Your task to perform on an android device: What is the news today? Image 0: 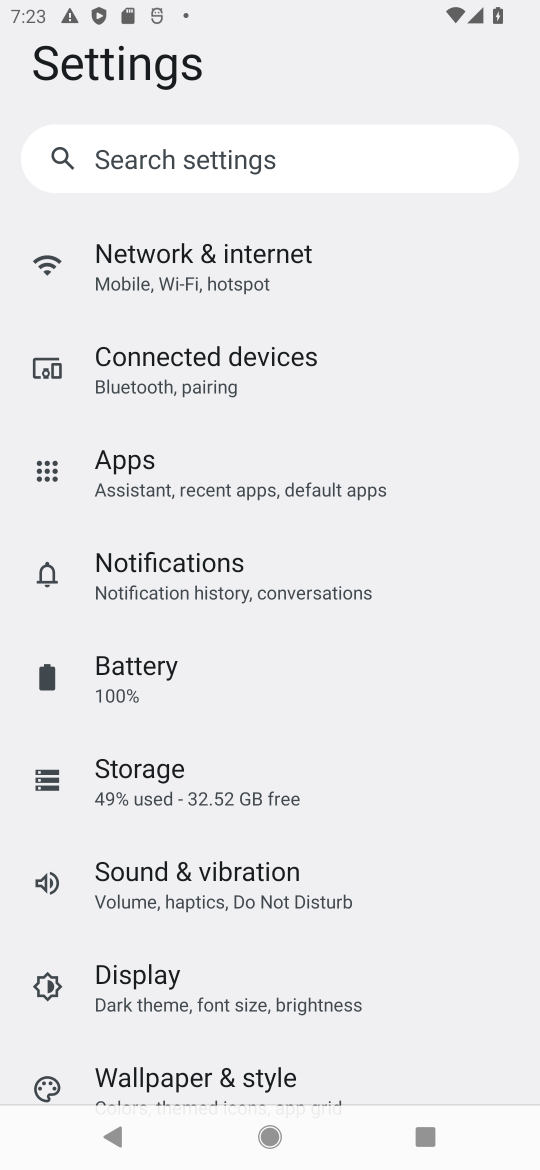
Step 0: press home button
Your task to perform on an android device: What is the news today? Image 1: 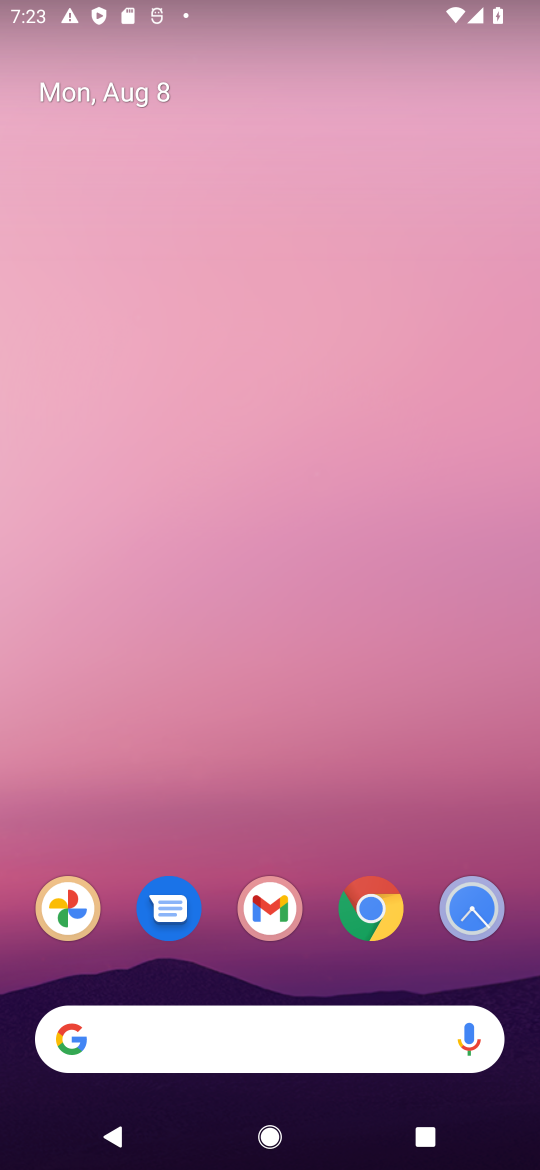
Step 1: click (258, 1036)
Your task to perform on an android device: What is the news today? Image 2: 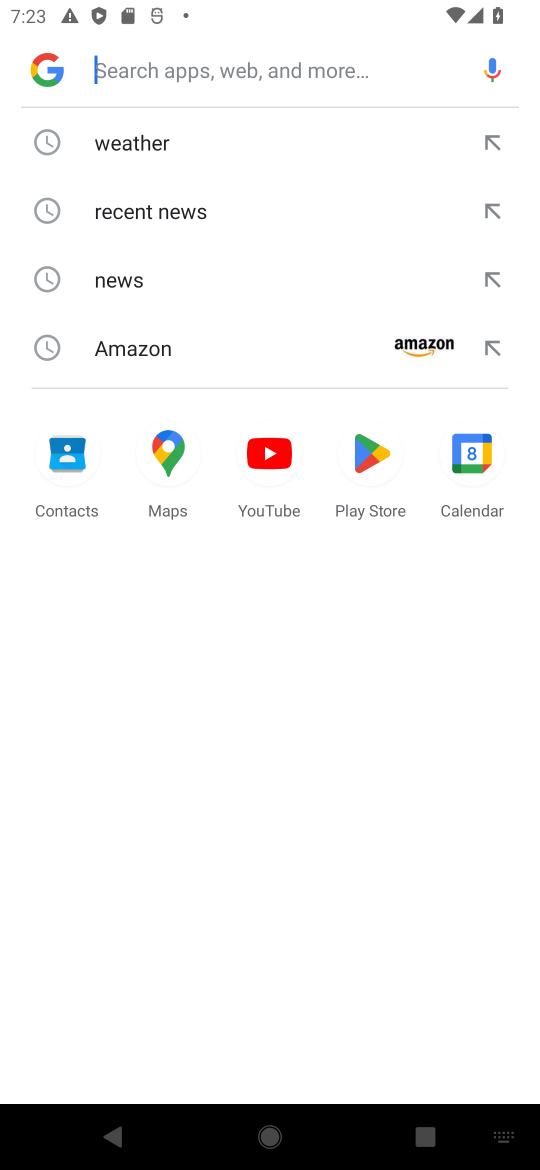
Step 2: click (279, 212)
Your task to perform on an android device: What is the news today? Image 3: 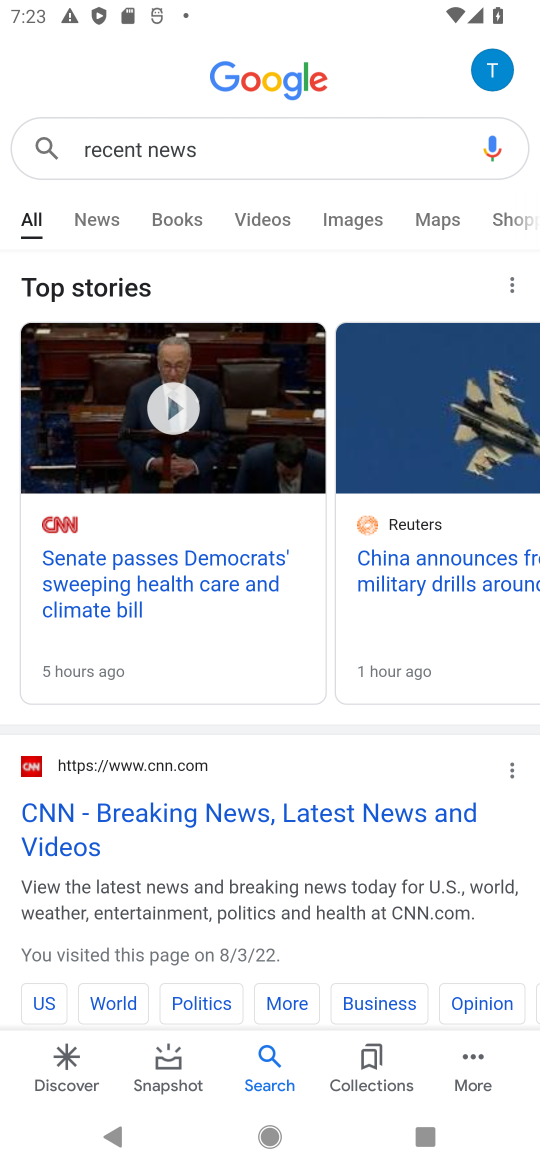
Step 3: task complete